Your task to perform on an android device: Go to network settings Image 0: 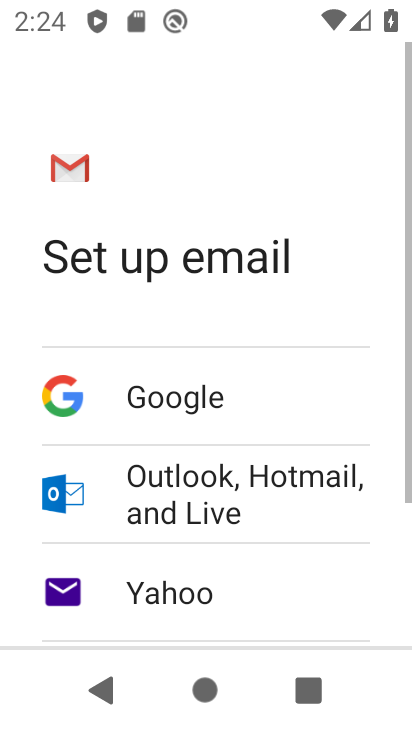
Step 0: press home button
Your task to perform on an android device: Go to network settings Image 1: 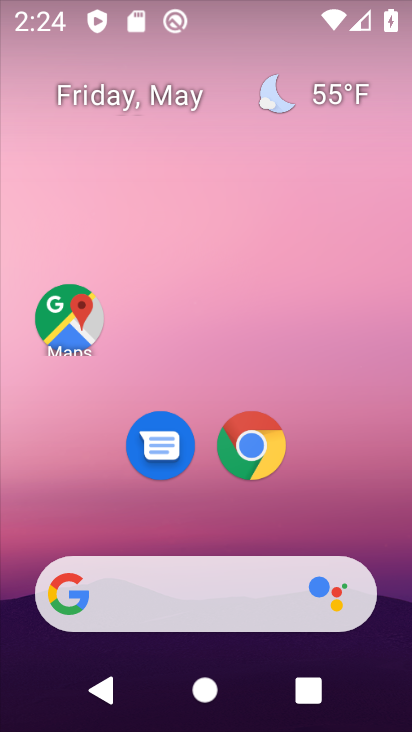
Step 1: drag from (366, 540) to (351, 158)
Your task to perform on an android device: Go to network settings Image 2: 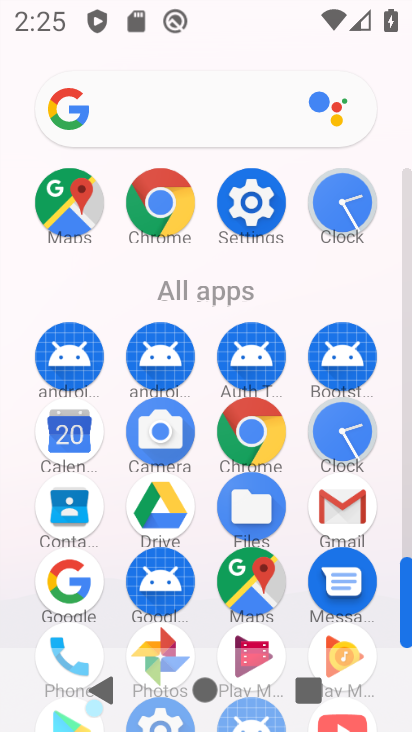
Step 2: click (273, 207)
Your task to perform on an android device: Go to network settings Image 3: 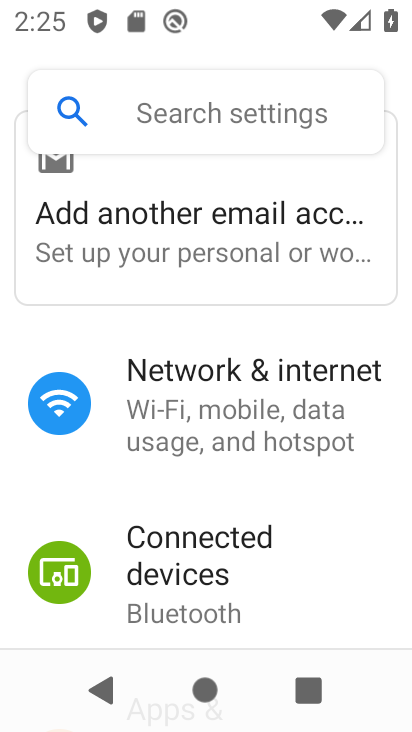
Step 3: drag from (304, 618) to (275, 278)
Your task to perform on an android device: Go to network settings Image 4: 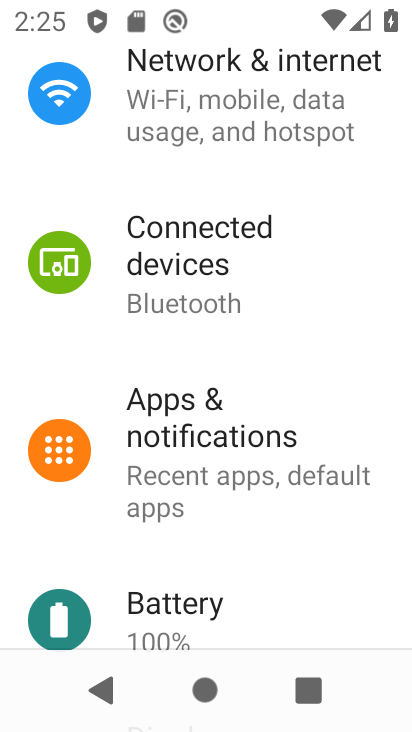
Step 4: click (267, 120)
Your task to perform on an android device: Go to network settings Image 5: 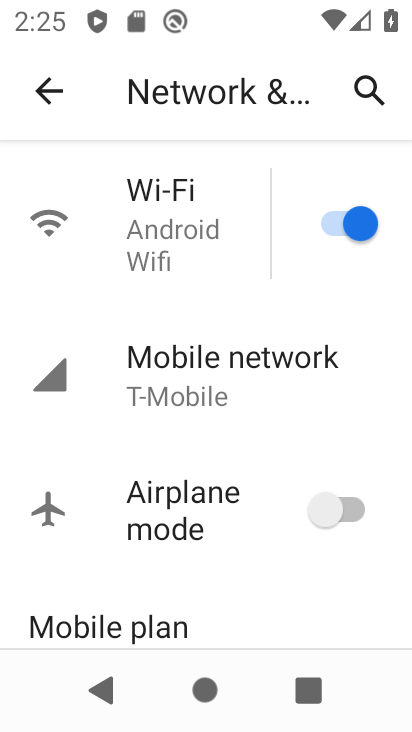
Step 5: task complete